Your task to perform on an android device: Open internet settings Image 0: 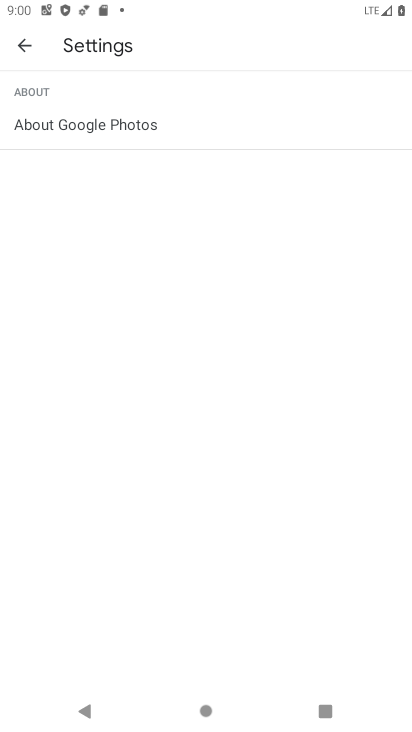
Step 0: press home button
Your task to perform on an android device: Open internet settings Image 1: 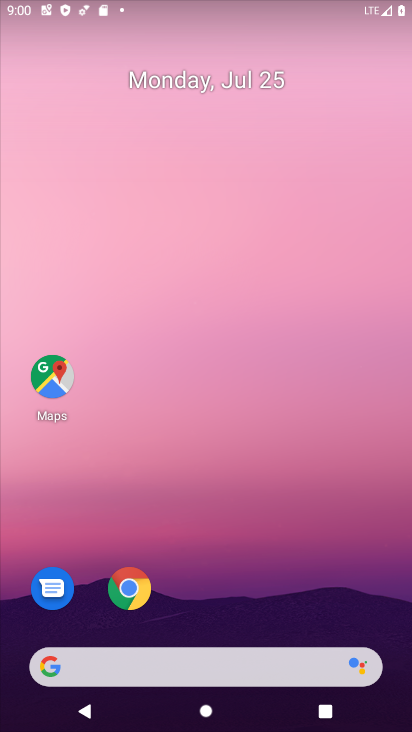
Step 1: drag from (214, 580) to (248, 130)
Your task to perform on an android device: Open internet settings Image 2: 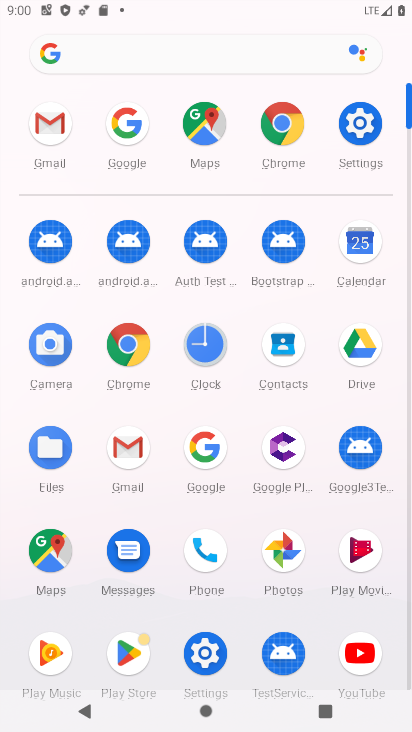
Step 2: click (372, 121)
Your task to perform on an android device: Open internet settings Image 3: 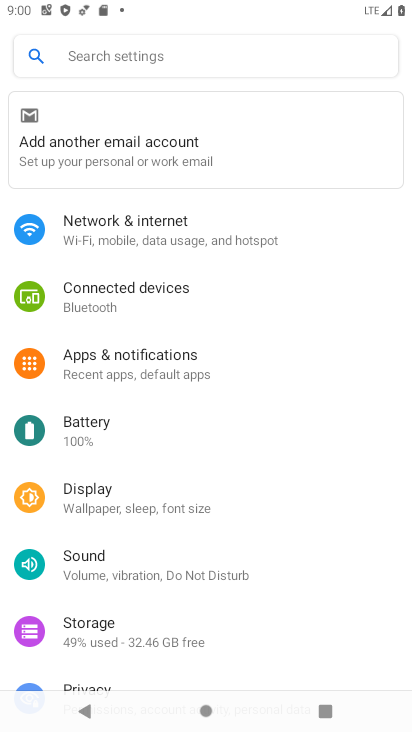
Step 3: click (169, 226)
Your task to perform on an android device: Open internet settings Image 4: 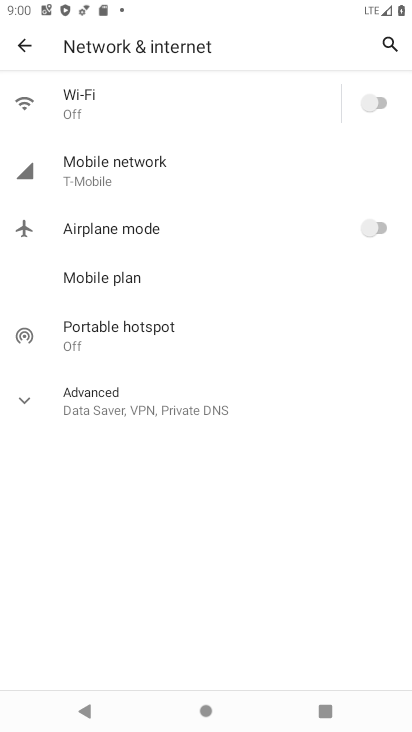
Step 4: click (86, 384)
Your task to perform on an android device: Open internet settings Image 5: 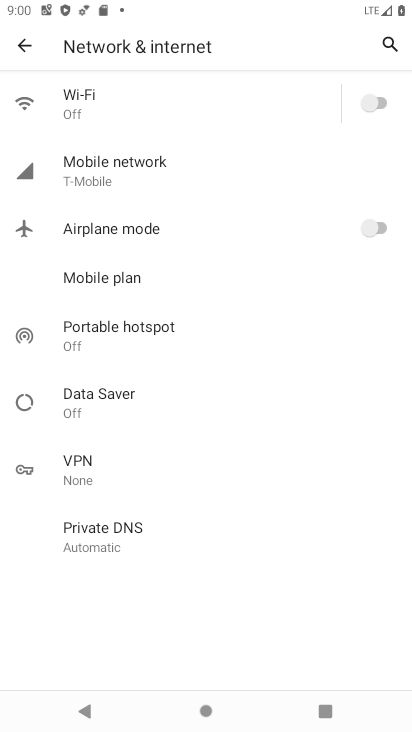
Step 5: click (115, 219)
Your task to perform on an android device: Open internet settings Image 6: 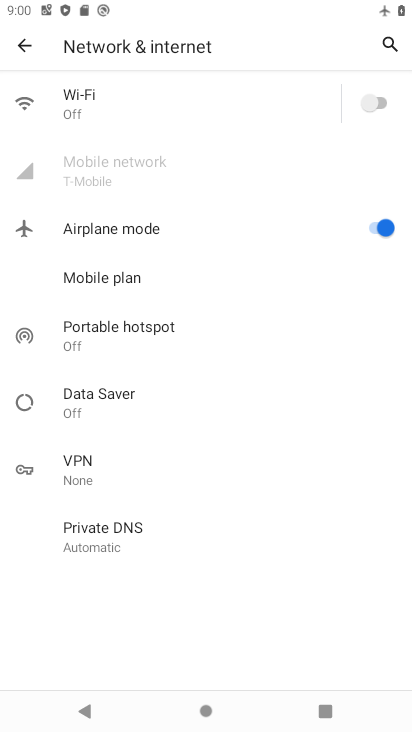
Step 6: click (383, 224)
Your task to perform on an android device: Open internet settings Image 7: 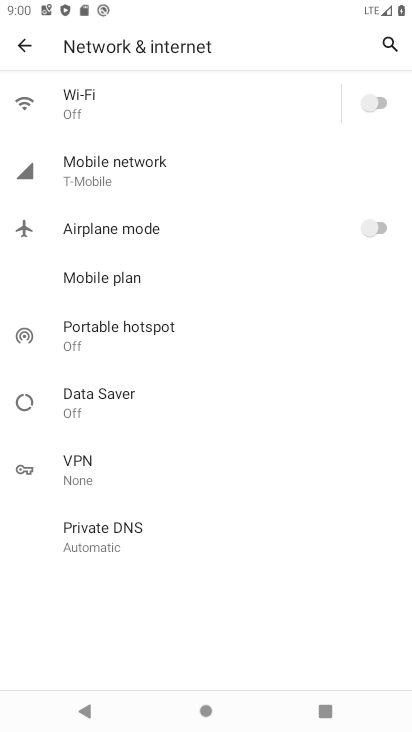
Step 7: click (85, 174)
Your task to perform on an android device: Open internet settings Image 8: 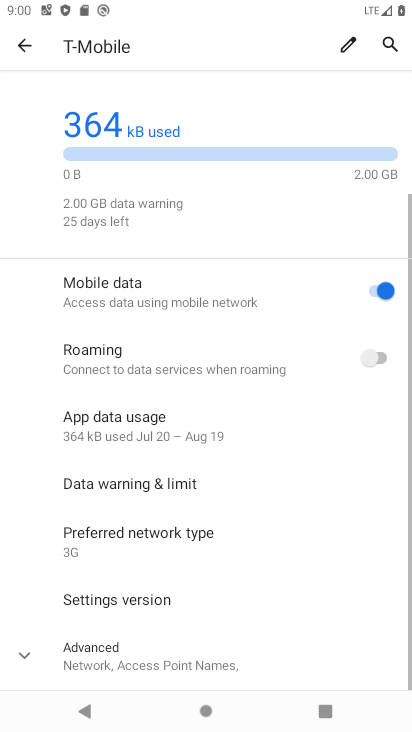
Step 8: drag from (163, 607) to (216, 116)
Your task to perform on an android device: Open internet settings Image 9: 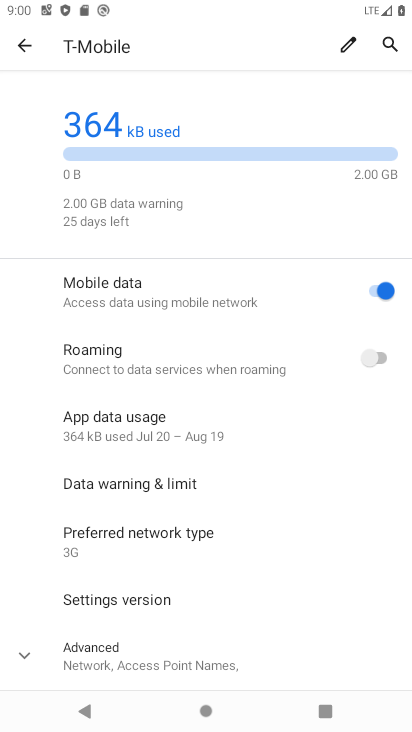
Step 9: click (145, 648)
Your task to perform on an android device: Open internet settings Image 10: 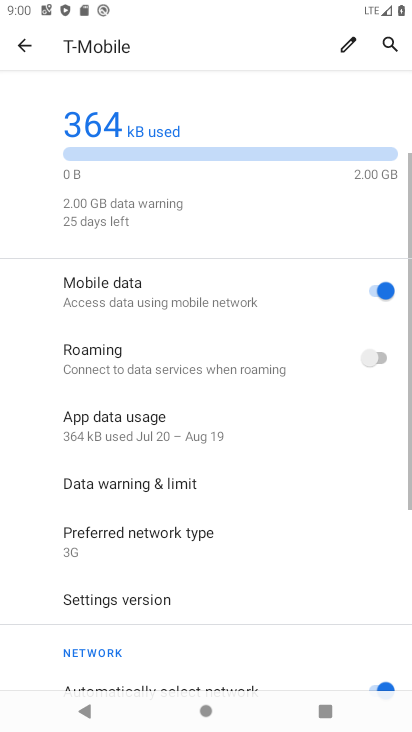
Step 10: task complete